Your task to perform on an android device: install app "YouTube Kids" Image 0: 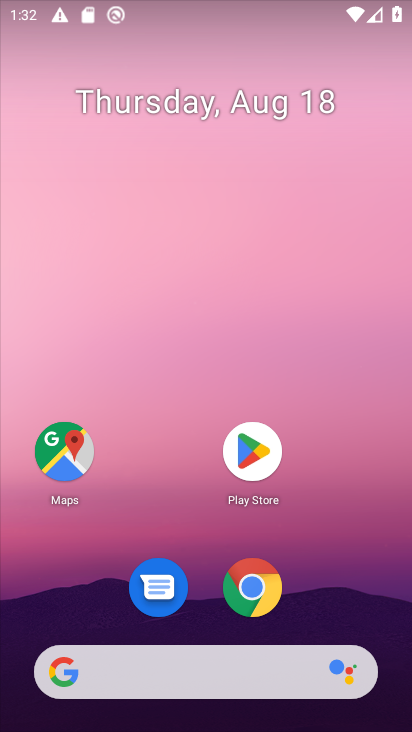
Step 0: press home button
Your task to perform on an android device: install app "YouTube Kids" Image 1: 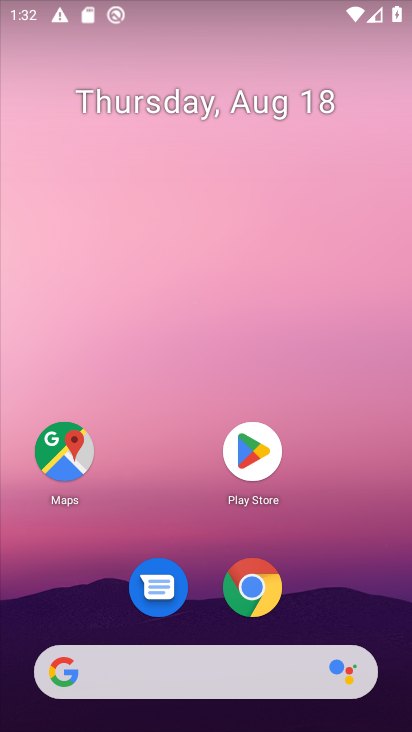
Step 1: click (258, 462)
Your task to perform on an android device: install app "YouTube Kids" Image 2: 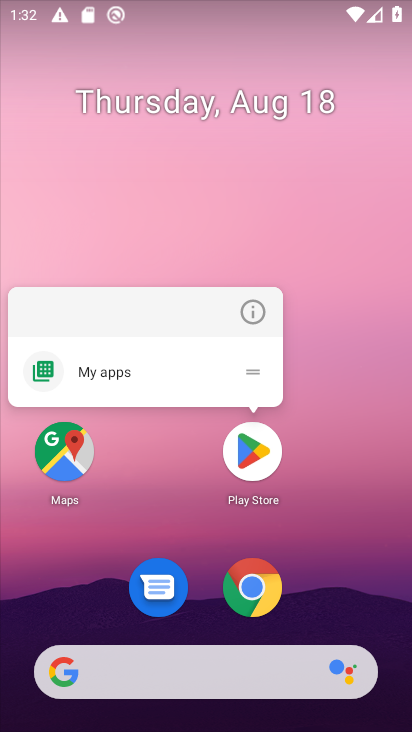
Step 2: click (250, 452)
Your task to perform on an android device: install app "YouTube Kids" Image 3: 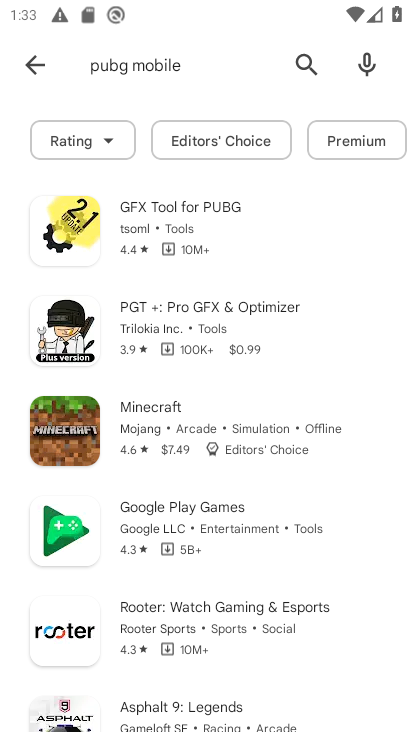
Step 3: click (299, 62)
Your task to perform on an android device: install app "YouTube Kids" Image 4: 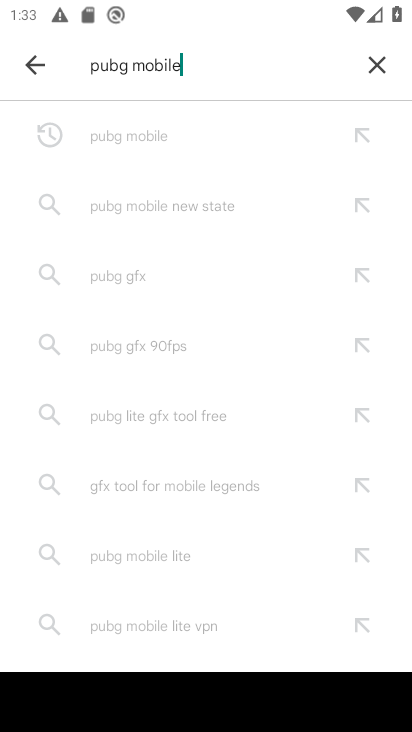
Step 4: click (376, 66)
Your task to perform on an android device: install app "YouTube Kids" Image 5: 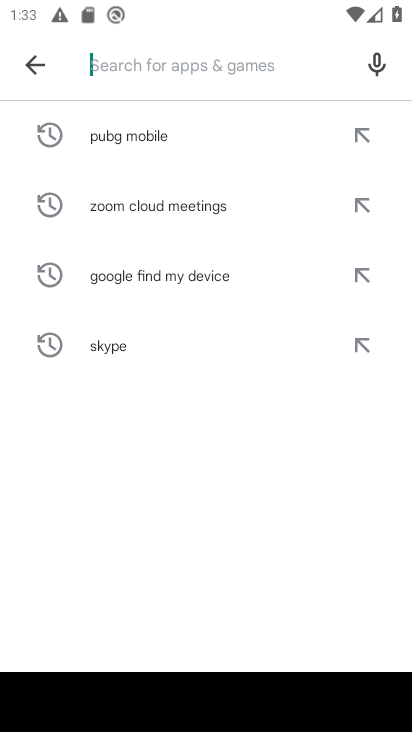
Step 5: type "YouTube Kids"
Your task to perform on an android device: install app "YouTube Kids" Image 6: 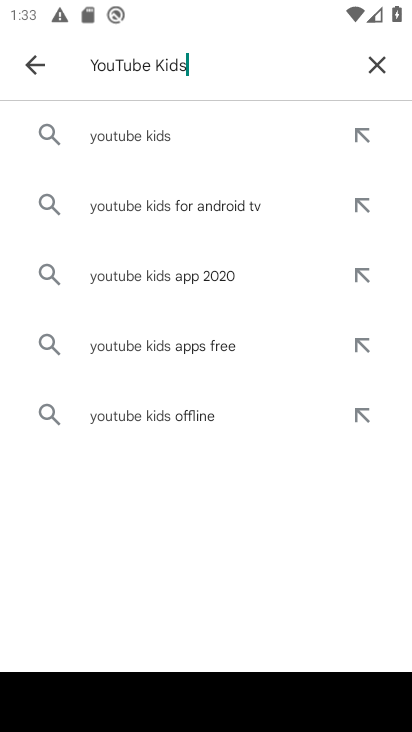
Step 6: click (136, 143)
Your task to perform on an android device: install app "YouTube Kids" Image 7: 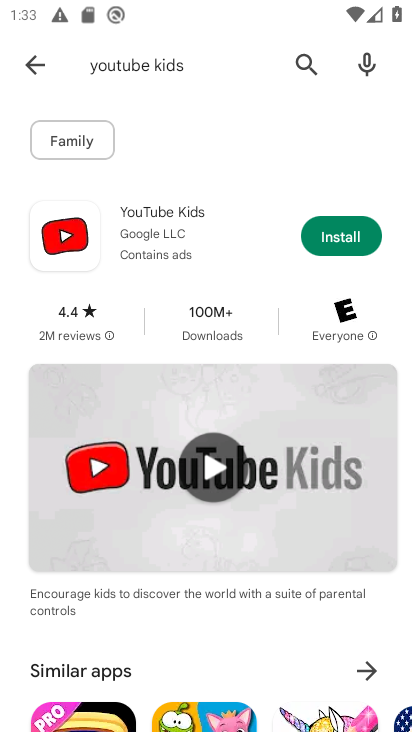
Step 7: click (332, 233)
Your task to perform on an android device: install app "YouTube Kids" Image 8: 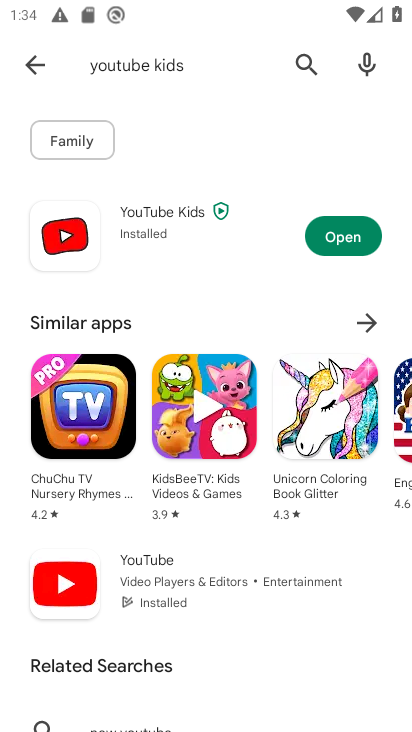
Step 8: task complete